Your task to perform on an android device: turn off javascript in the chrome app Image 0: 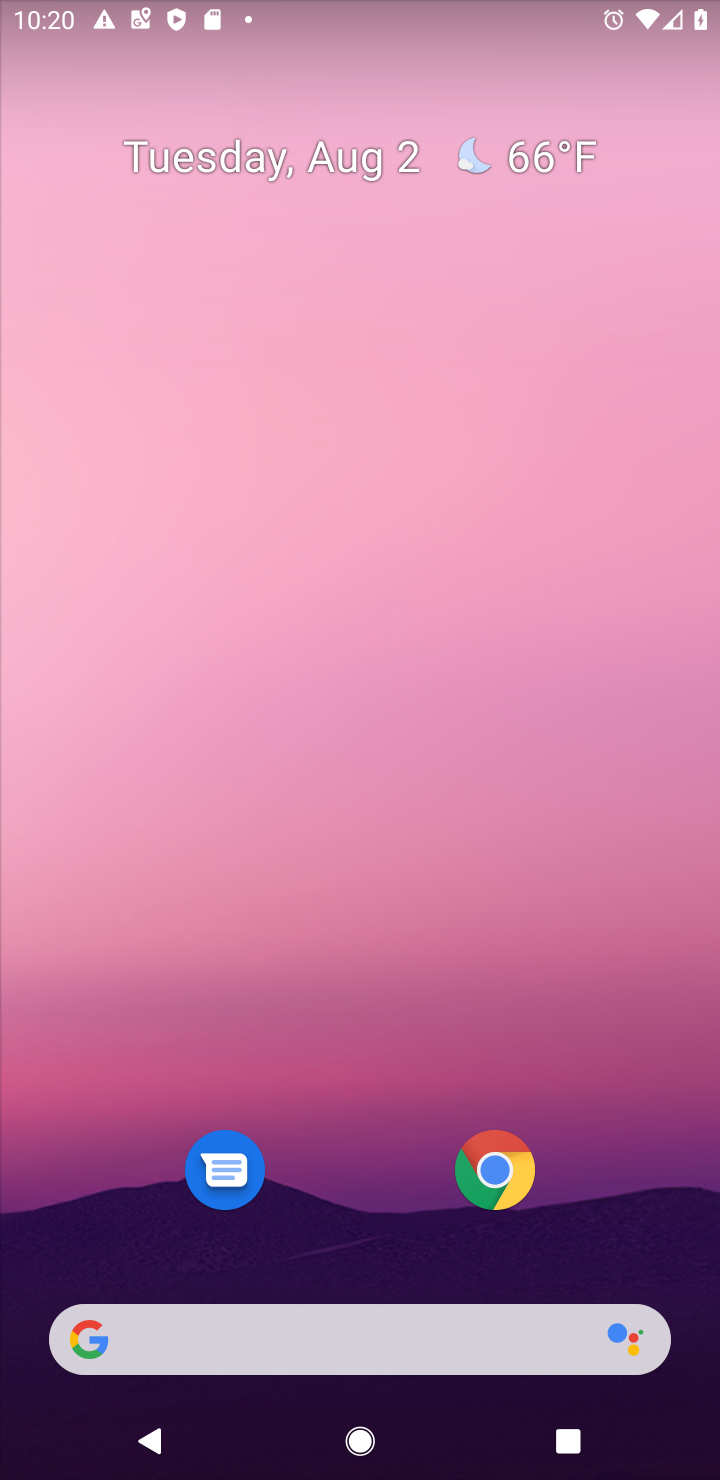
Step 0: click (494, 1181)
Your task to perform on an android device: turn off javascript in the chrome app Image 1: 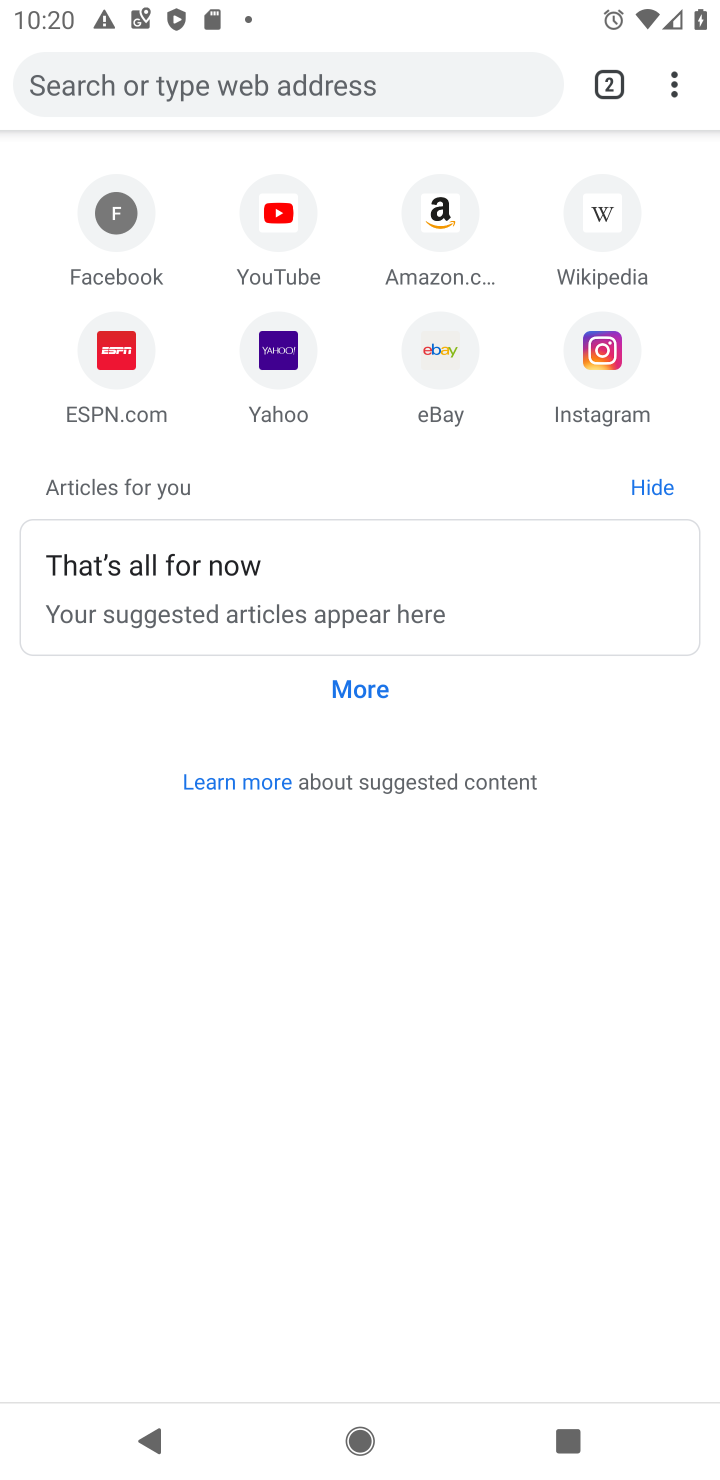
Step 1: click (668, 95)
Your task to perform on an android device: turn off javascript in the chrome app Image 2: 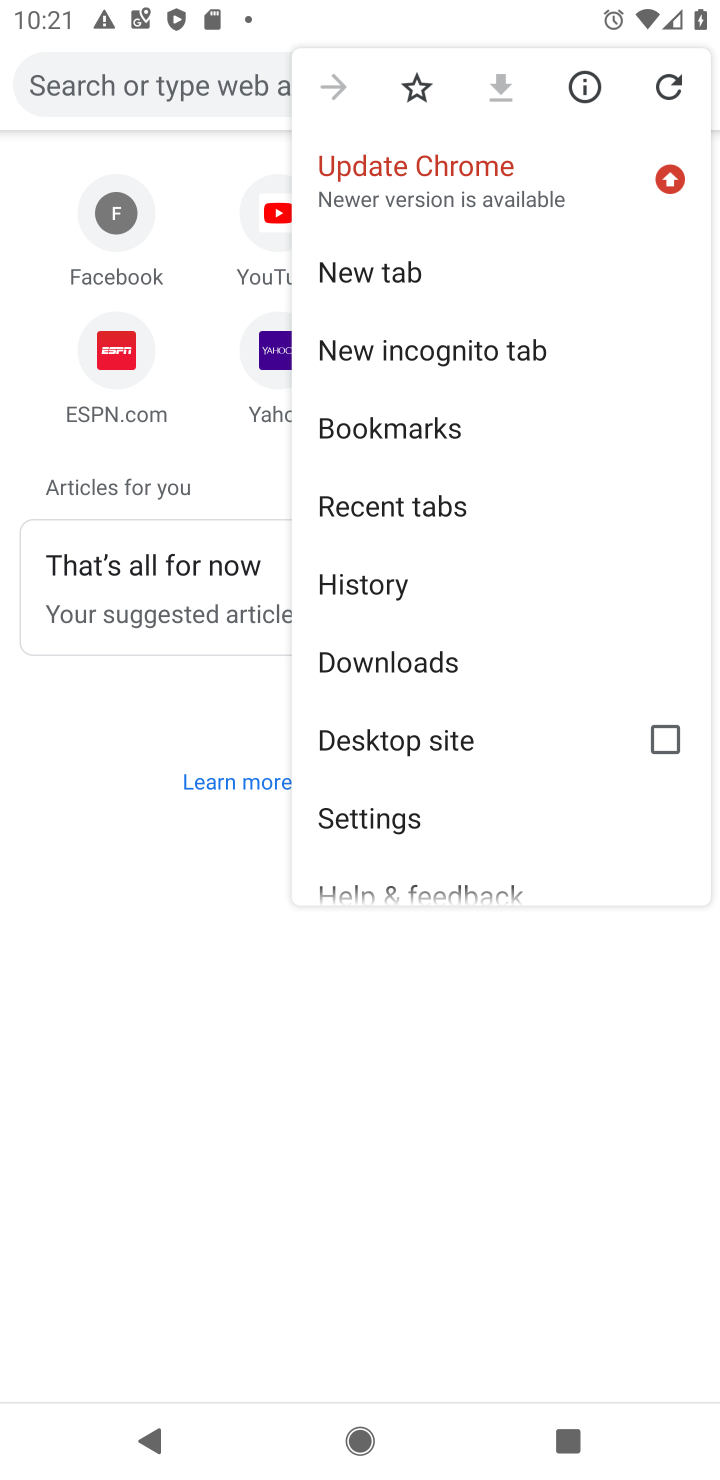
Step 2: click (350, 810)
Your task to perform on an android device: turn off javascript in the chrome app Image 3: 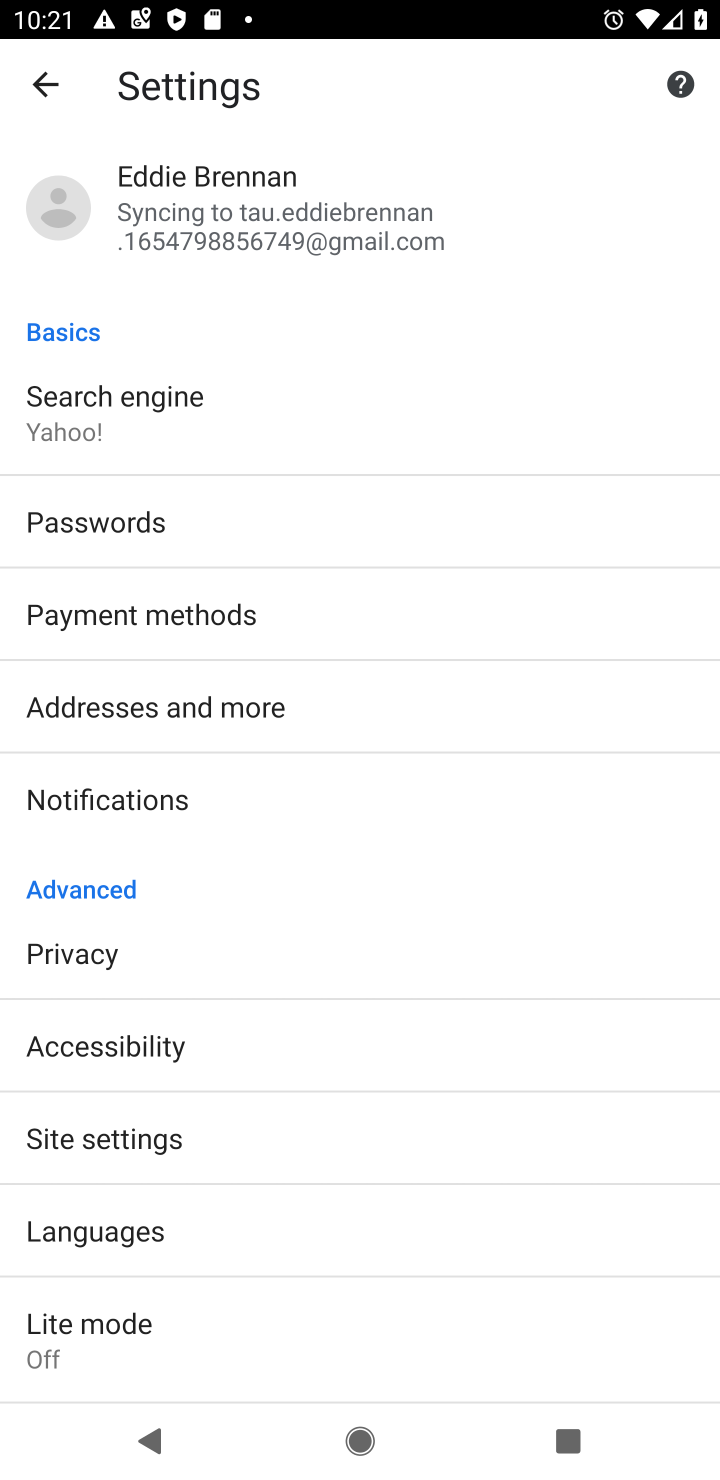
Step 3: click (159, 1120)
Your task to perform on an android device: turn off javascript in the chrome app Image 4: 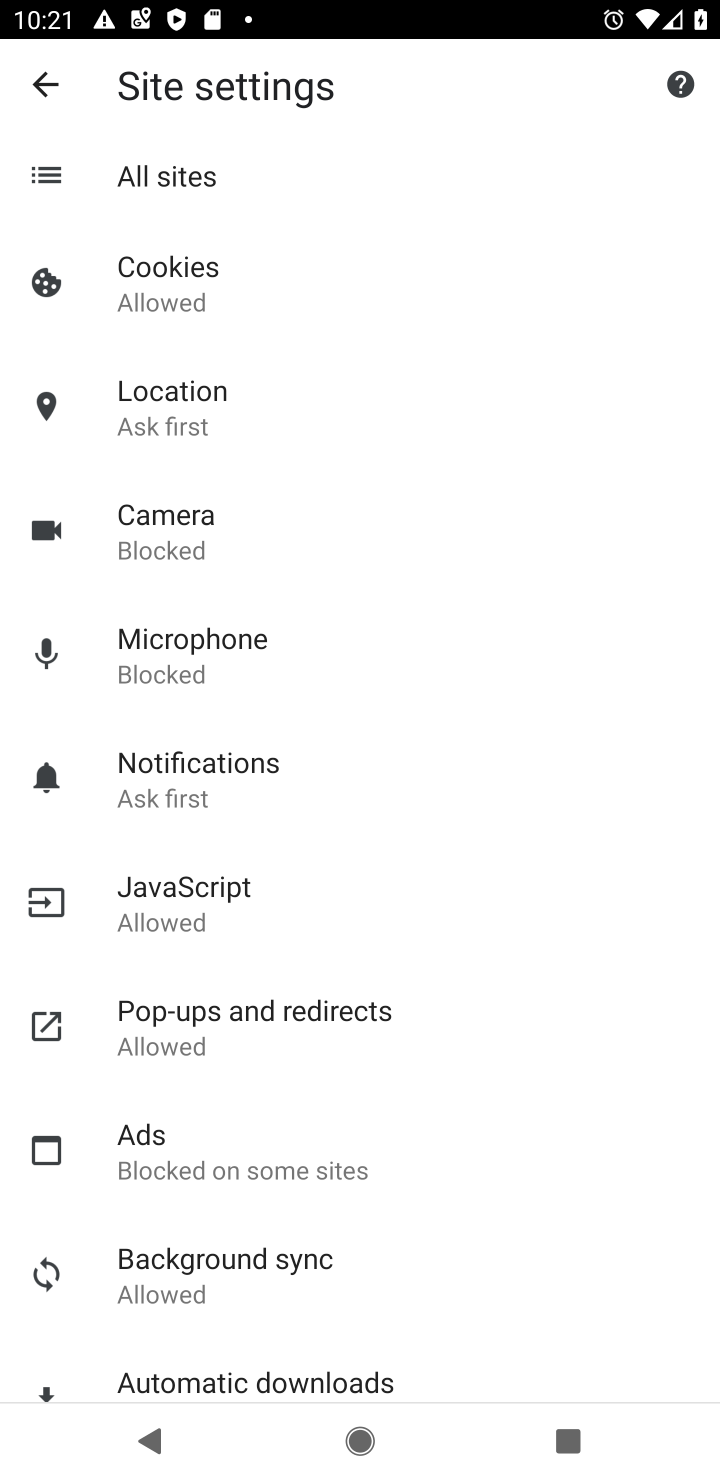
Step 4: click (170, 902)
Your task to perform on an android device: turn off javascript in the chrome app Image 5: 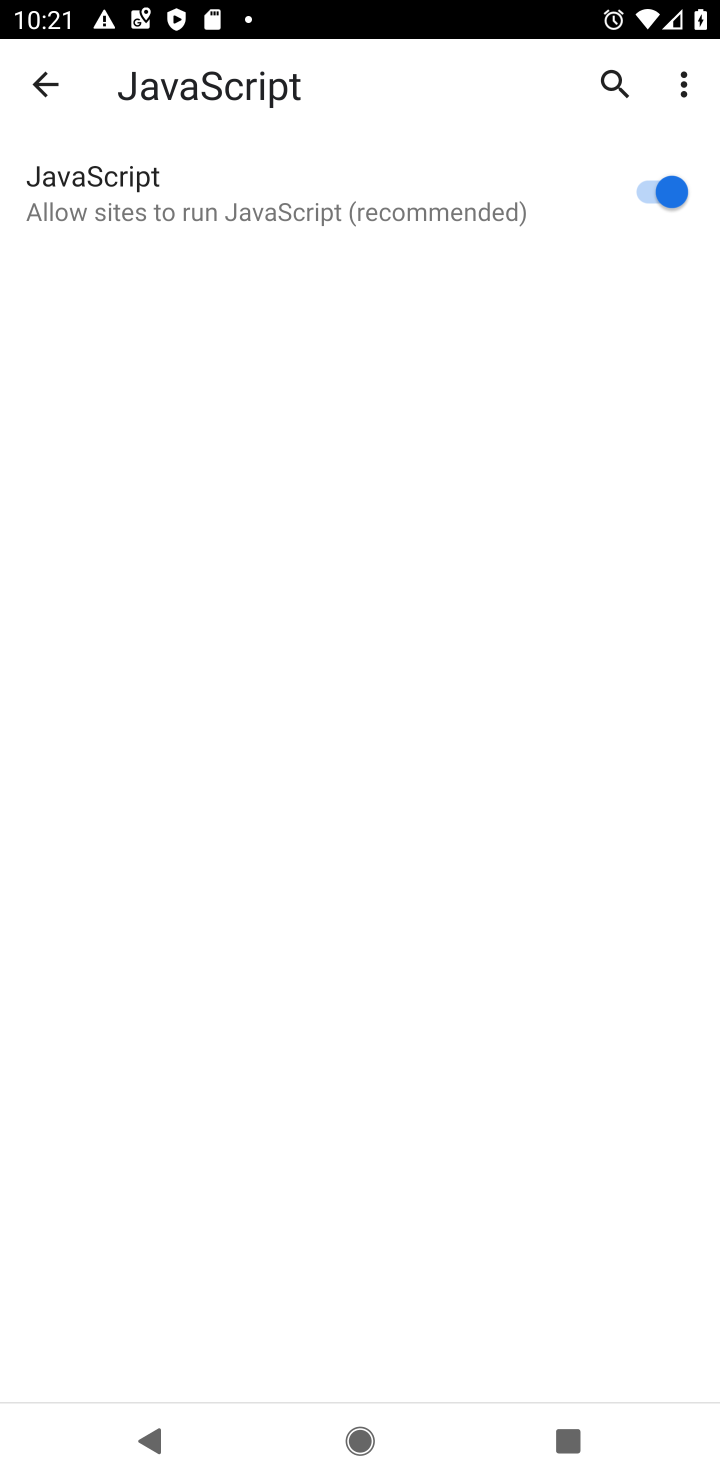
Step 5: click (633, 182)
Your task to perform on an android device: turn off javascript in the chrome app Image 6: 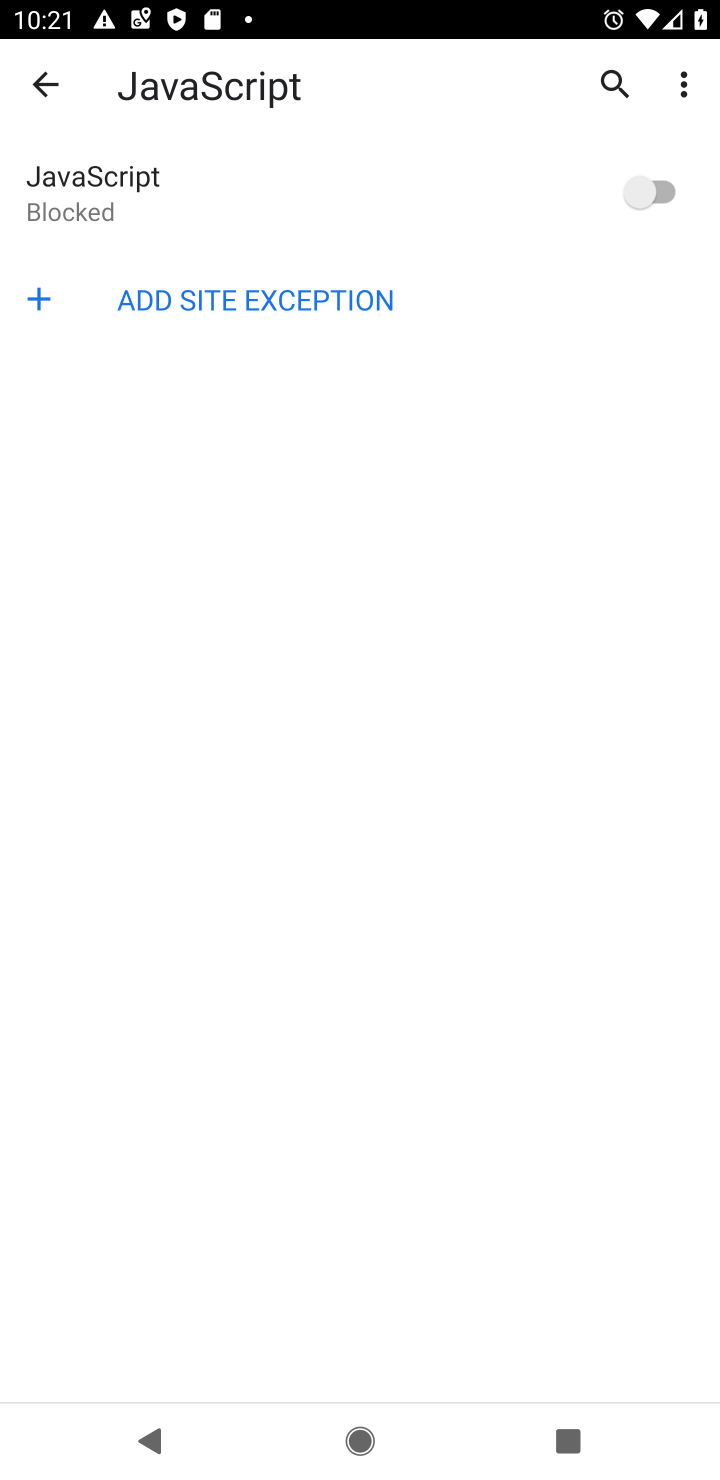
Step 6: task complete